Your task to perform on an android device: View the shopping cart on bestbuy. Image 0: 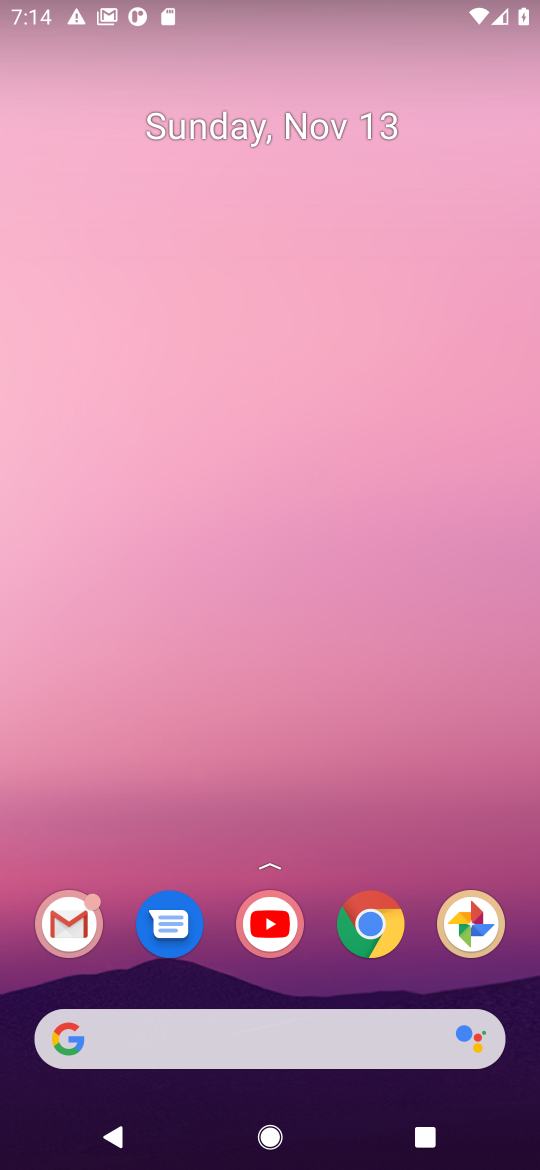
Step 0: click (373, 922)
Your task to perform on an android device: View the shopping cart on bestbuy. Image 1: 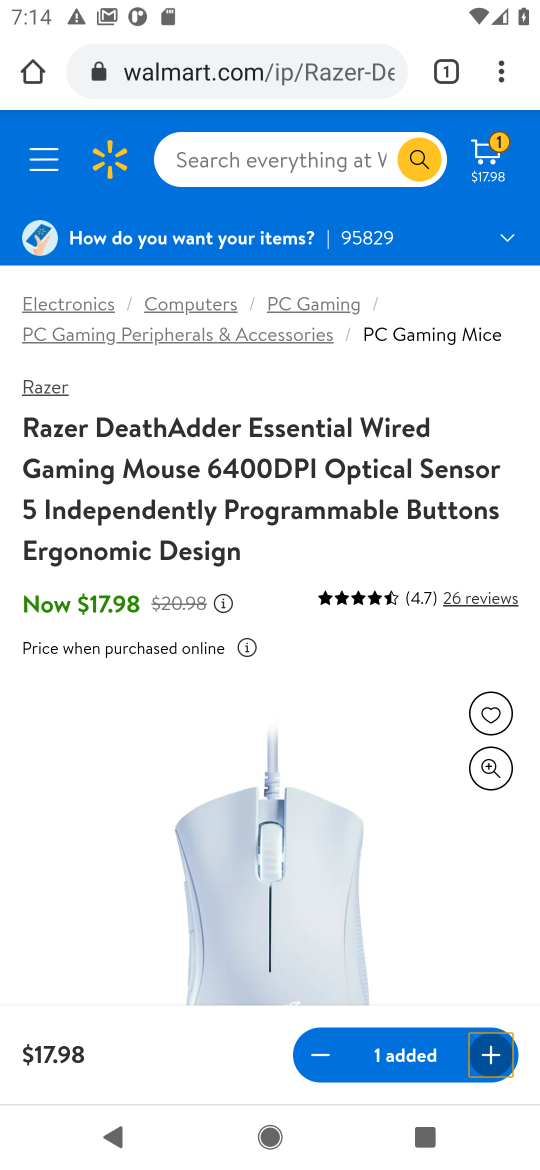
Step 1: click (229, 77)
Your task to perform on an android device: View the shopping cart on bestbuy. Image 2: 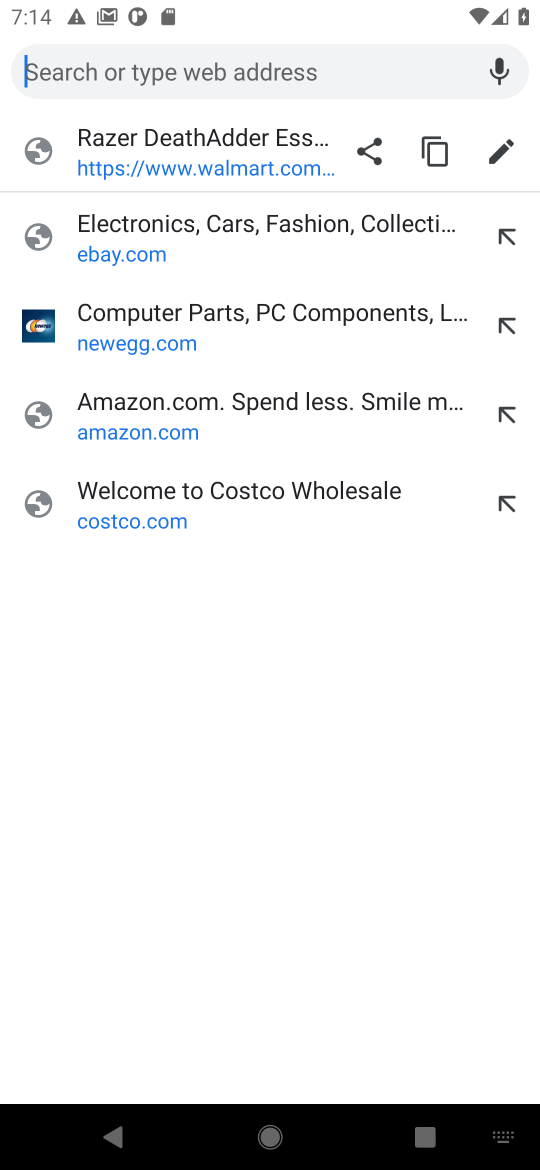
Step 2: type "bestbuy.com"
Your task to perform on an android device: View the shopping cart on bestbuy. Image 3: 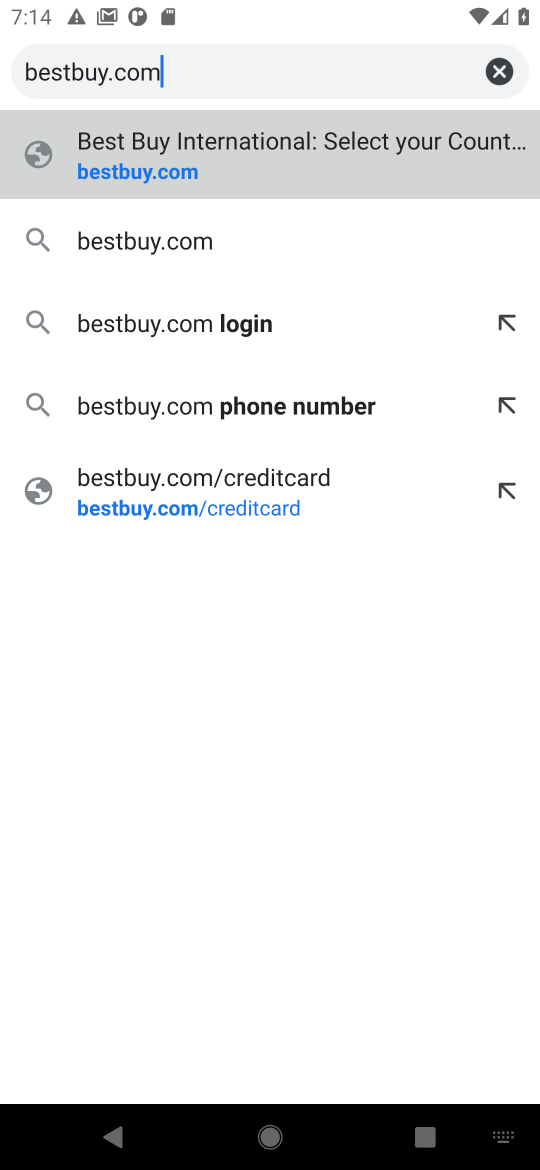
Step 3: click (106, 171)
Your task to perform on an android device: View the shopping cart on bestbuy. Image 4: 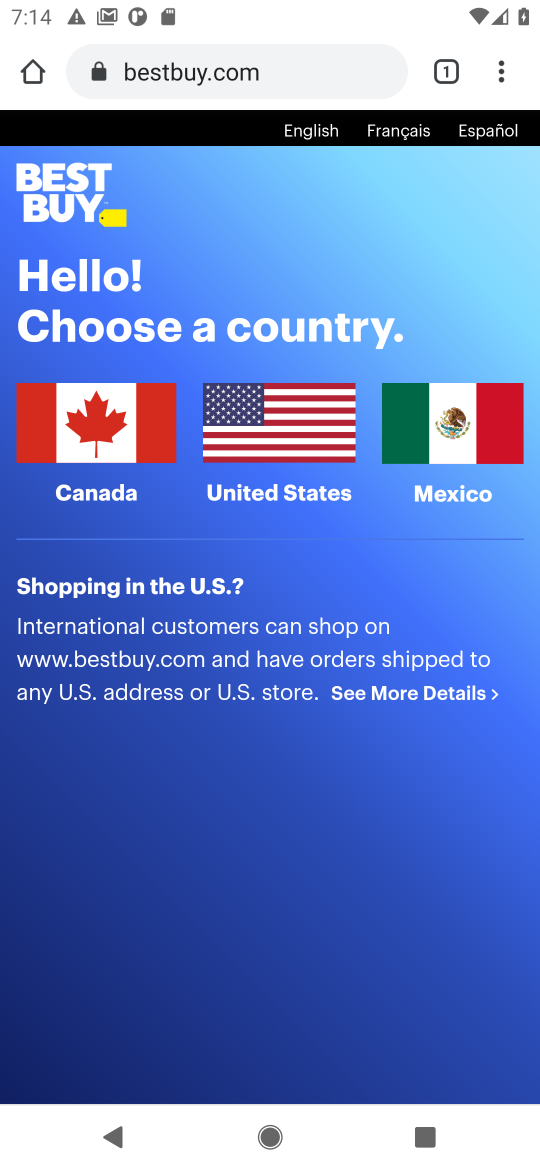
Step 4: click (287, 463)
Your task to perform on an android device: View the shopping cart on bestbuy. Image 5: 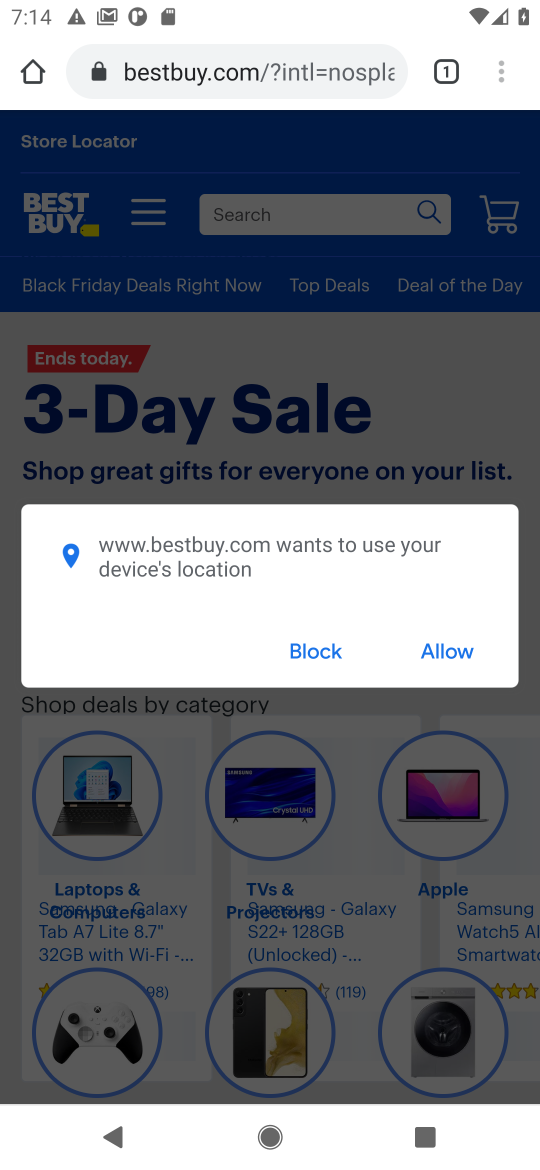
Step 5: click (294, 653)
Your task to perform on an android device: View the shopping cart on bestbuy. Image 6: 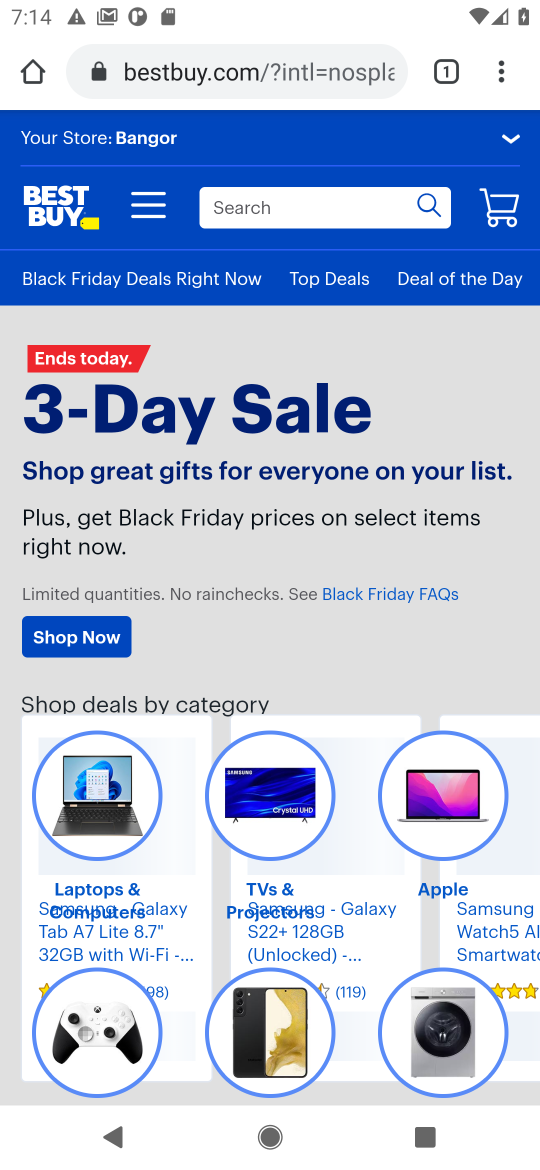
Step 6: click (489, 208)
Your task to perform on an android device: View the shopping cart on bestbuy. Image 7: 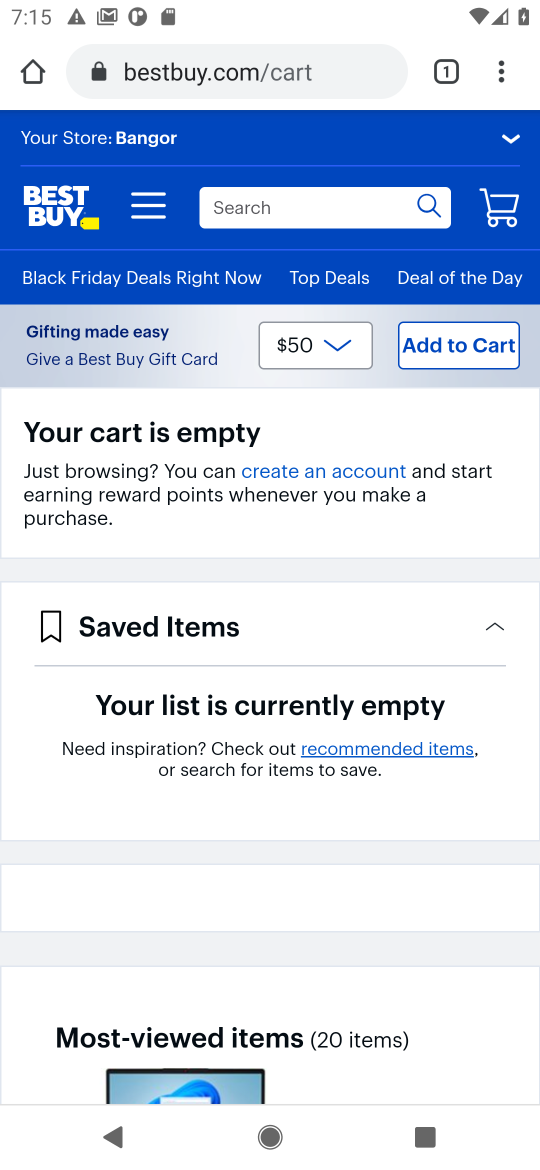
Step 7: task complete